Your task to perform on an android device: Go to network settings Image 0: 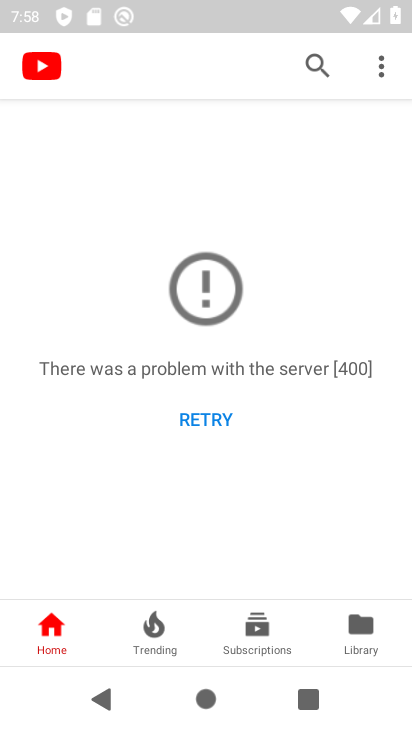
Step 0: press back button
Your task to perform on an android device: Go to network settings Image 1: 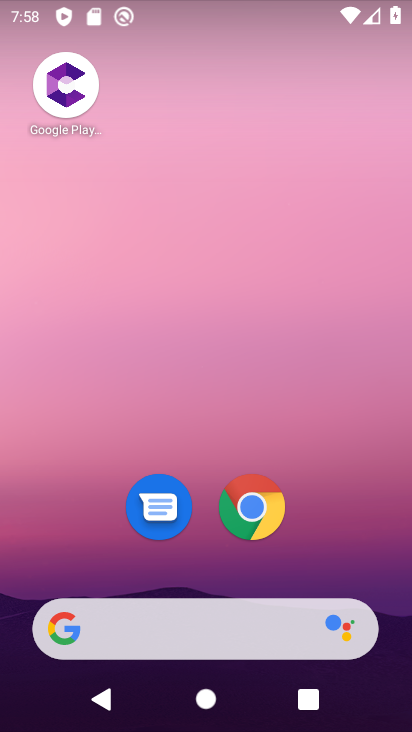
Step 1: drag from (272, 580) to (238, 58)
Your task to perform on an android device: Go to network settings Image 2: 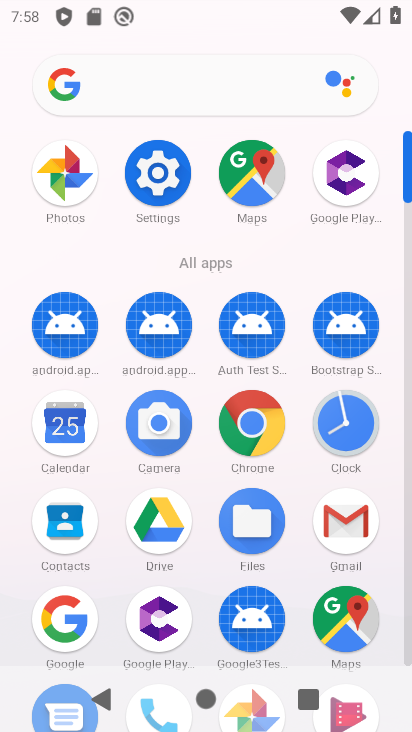
Step 2: click (163, 170)
Your task to perform on an android device: Go to network settings Image 3: 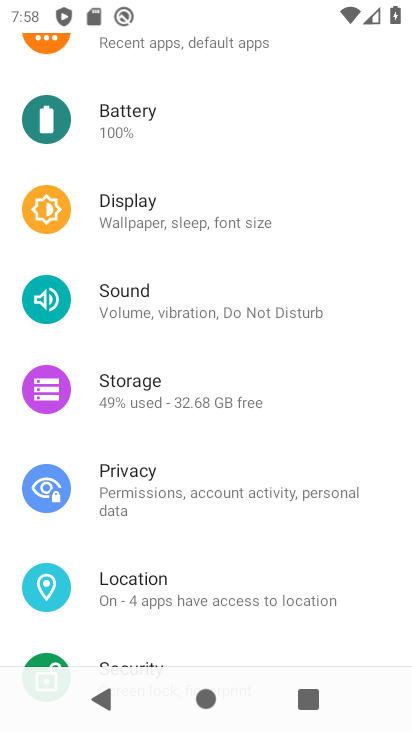
Step 3: drag from (163, 170) to (141, 619)
Your task to perform on an android device: Go to network settings Image 4: 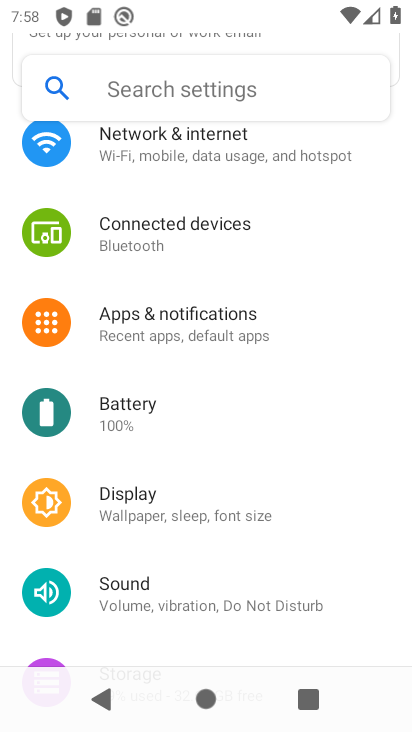
Step 4: click (168, 175)
Your task to perform on an android device: Go to network settings Image 5: 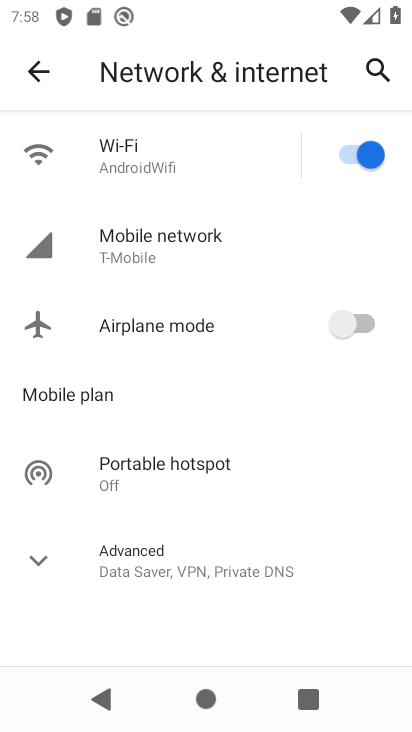
Step 5: click (167, 271)
Your task to perform on an android device: Go to network settings Image 6: 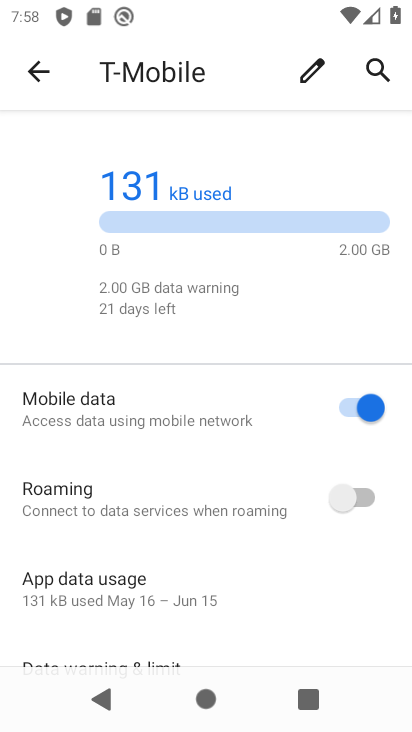
Step 6: task complete